Your task to perform on an android device: check battery use Image 0: 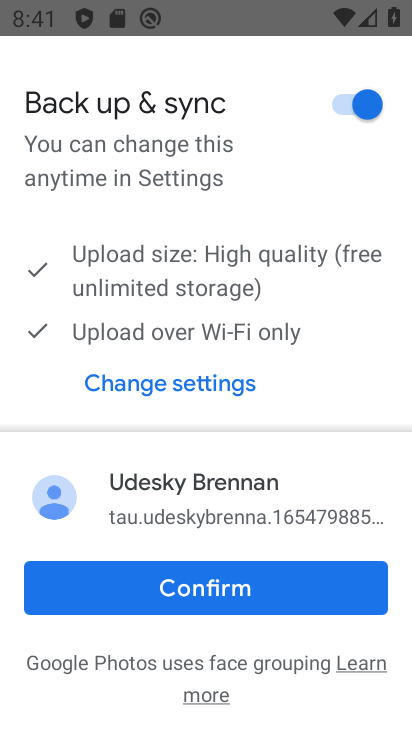
Step 0: press home button
Your task to perform on an android device: check battery use Image 1: 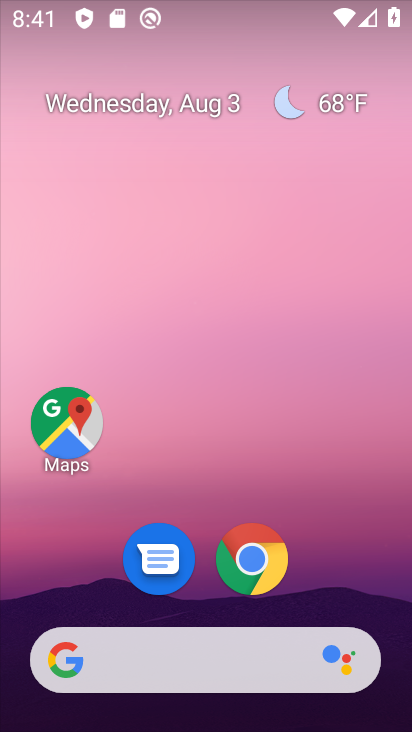
Step 1: drag from (380, 597) to (233, 76)
Your task to perform on an android device: check battery use Image 2: 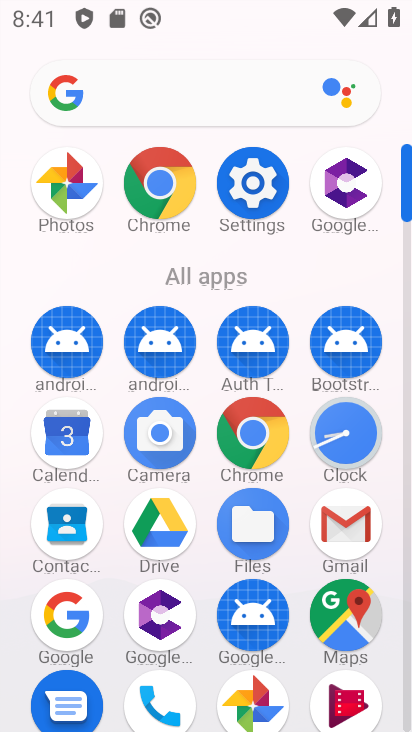
Step 2: click (267, 179)
Your task to perform on an android device: check battery use Image 3: 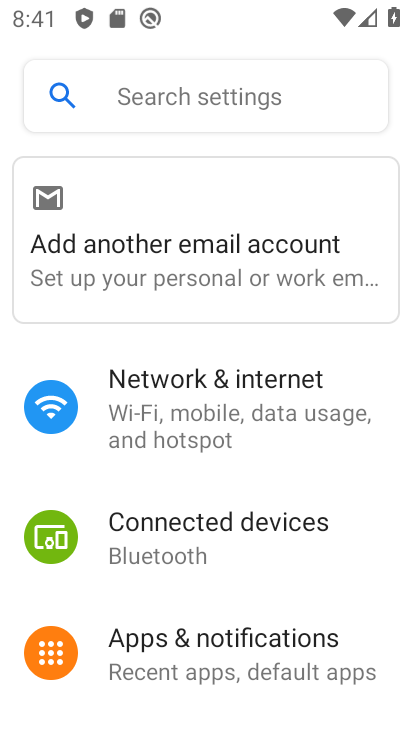
Step 3: drag from (311, 600) to (227, 210)
Your task to perform on an android device: check battery use Image 4: 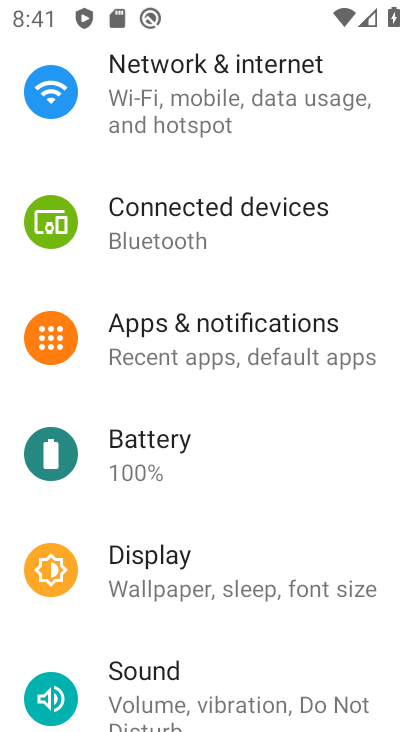
Step 4: click (265, 451)
Your task to perform on an android device: check battery use Image 5: 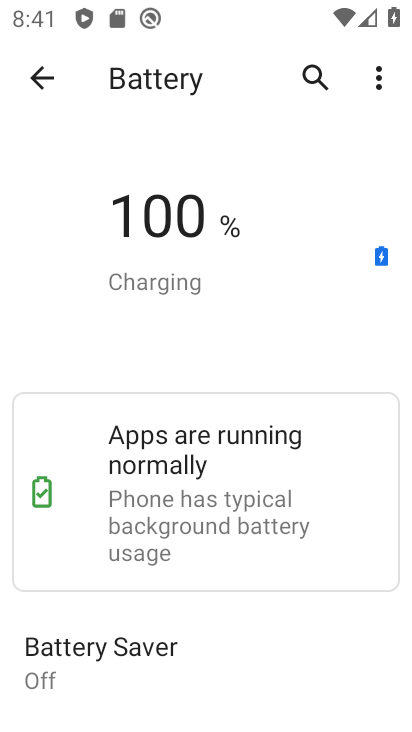
Step 5: click (376, 64)
Your task to perform on an android device: check battery use Image 6: 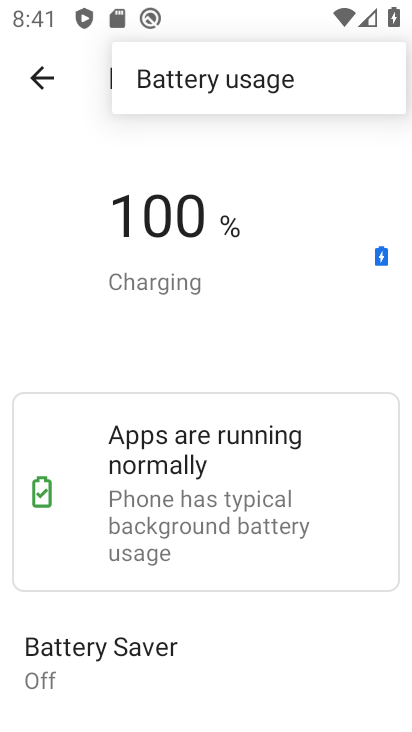
Step 6: click (289, 86)
Your task to perform on an android device: check battery use Image 7: 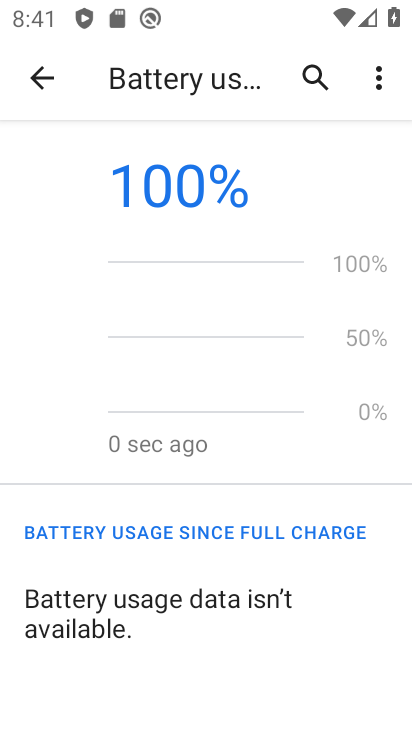
Step 7: task complete